Your task to perform on an android device: Open calendar and show me the first week of next month Image 0: 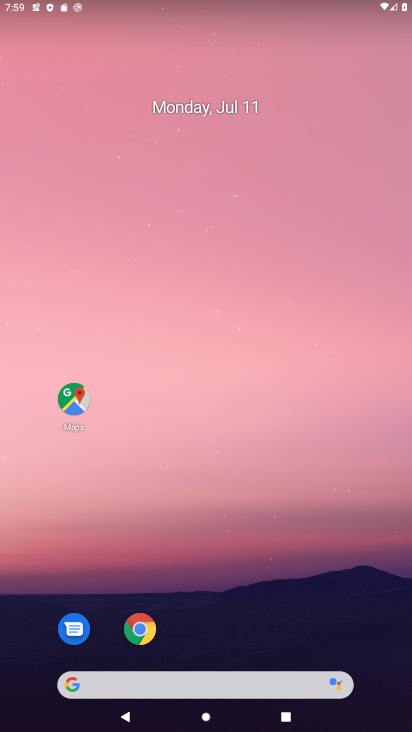
Step 0: drag from (232, 625) to (248, 137)
Your task to perform on an android device: Open calendar and show me the first week of next month Image 1: 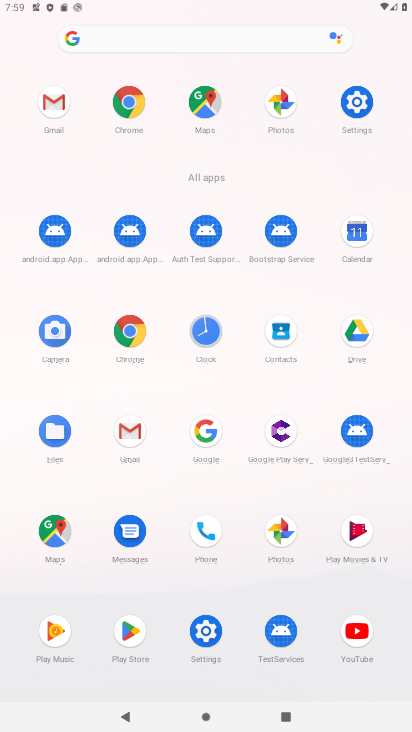
Step 1: click (356, 239)
Your task to perform on an android device: Open calendar and show me the first week of next month Image 2: 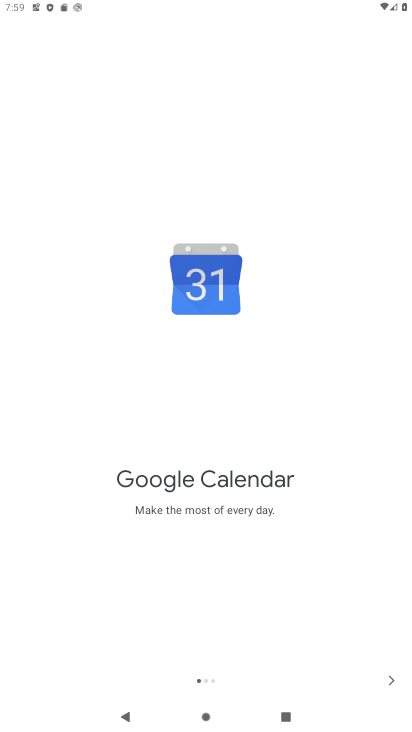
Step 2: click (387, 679)
Your task to perform on an android device: Open calendar and show me the first week of next month Image 3: 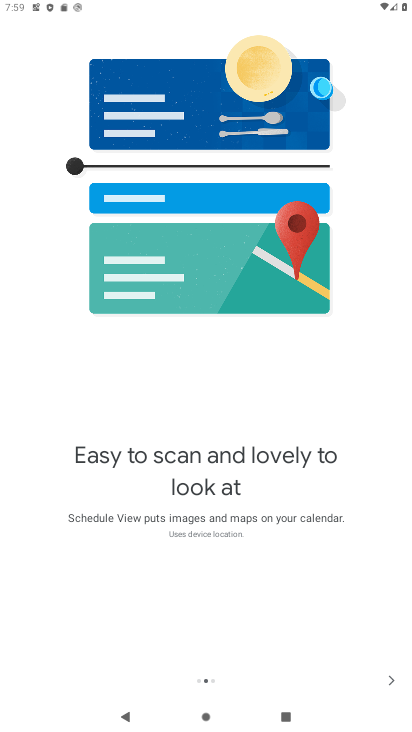
Step 3: click (386, 680)
Your task to perform on an android device: Open calendar and show me the first week of next month Image 4: 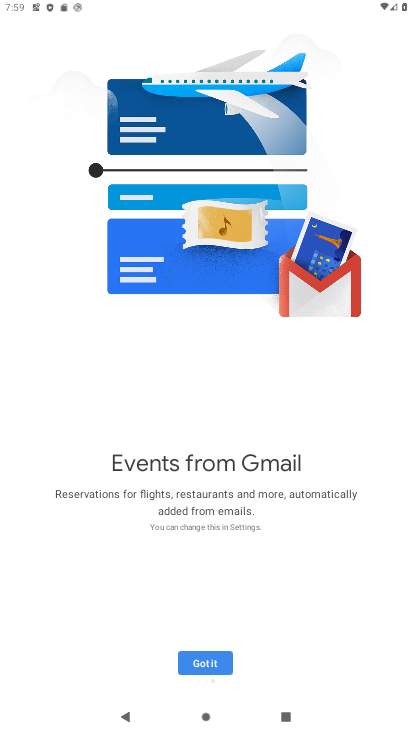
Step 4: click (386, 681)
Your task to perform on an android device: Open calendar and show me the first week of next month Image 5: 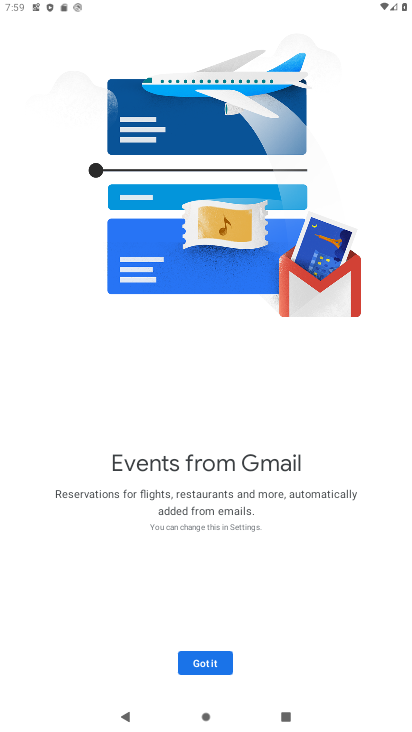
Step 5: click (189, 659)
Your task to perform on an android device: Open calendar and show me the first week of next month Image 6: 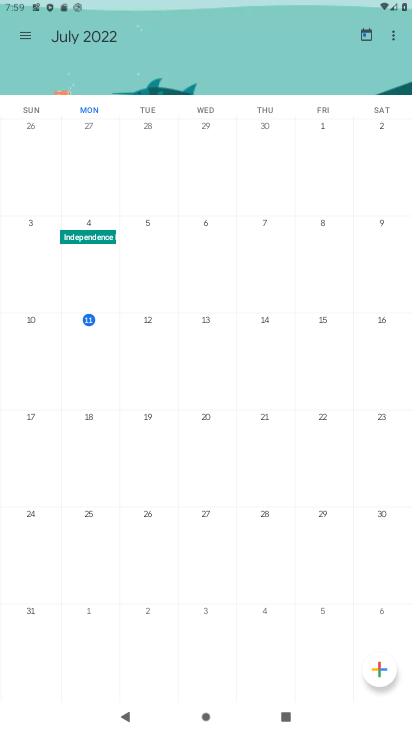
Step 6: drag from (382, 565) to (22, 506)
Your task to perform on an android device: Open calendar and show me the first week of next month Image 7: 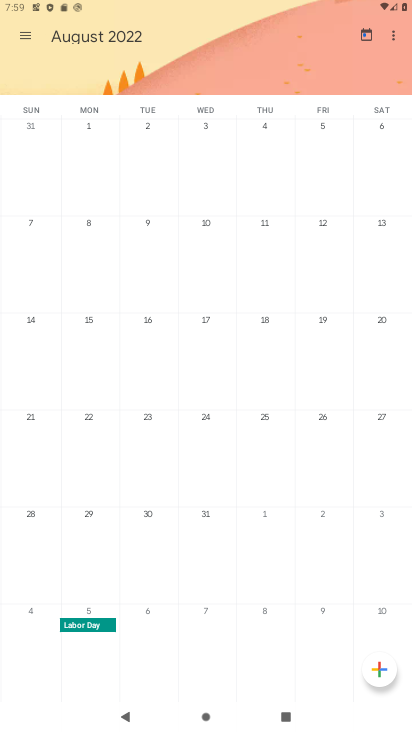
Step 7: click (317, 133)
Your task to perform on an android device: Open calendar and show me the first week of next month Image 8: 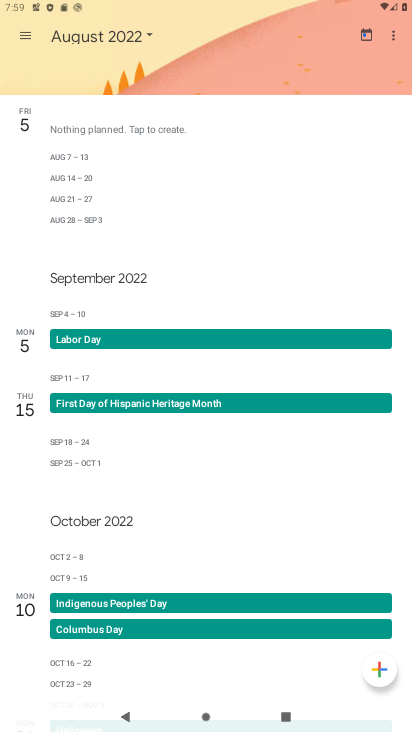
Step 8: task complete